Your task to perform on an android device: Go to location settings Image 0: 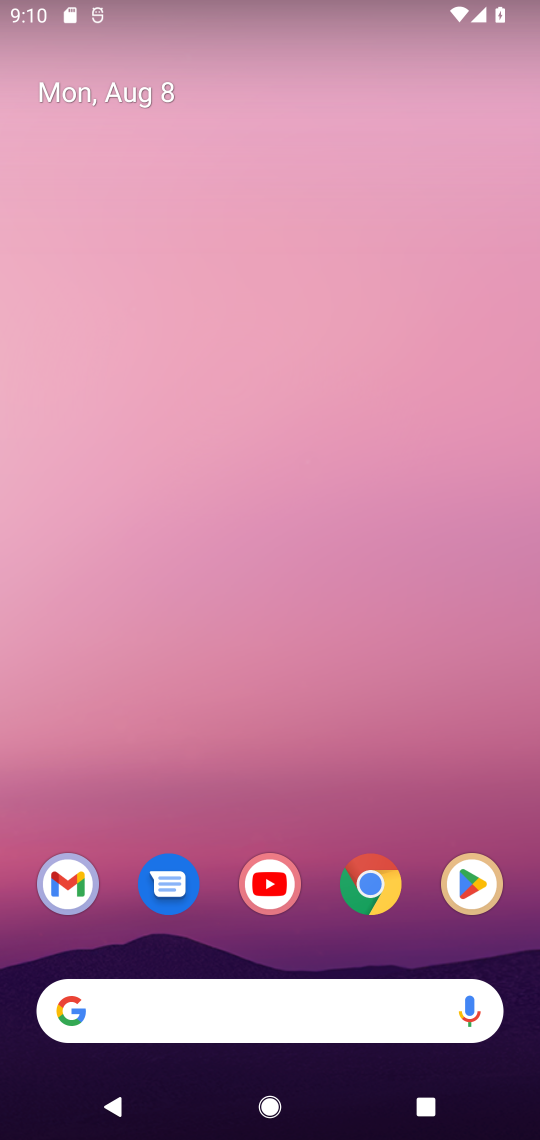
Step 0: drag from (236, 776) to (227, 20)
Your task to perform on an android device: Go to location settings Image 1: 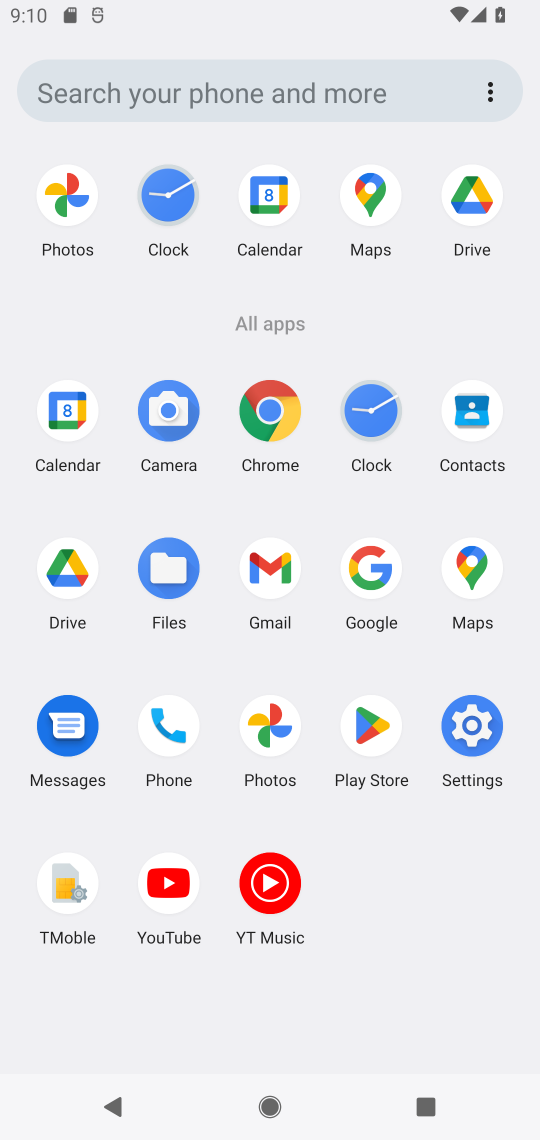
Step 1: click (474, 722)
Your task to perform on an android device: Go to location settings Image 2: 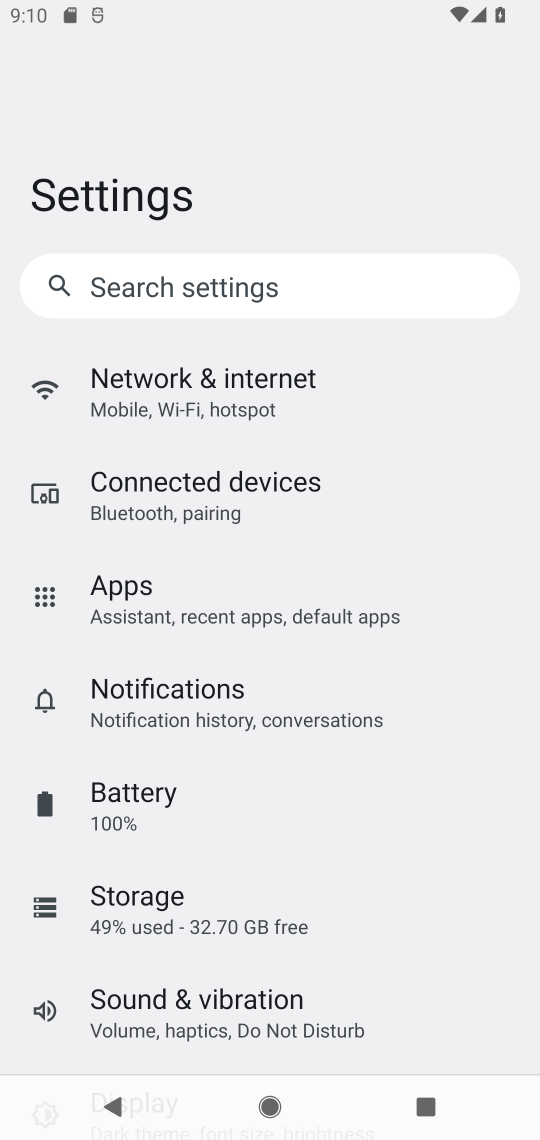
Step 2: drag from (292, 877) to (265, 242)
Your task to perform on an android device: Go to location settings Image 3: 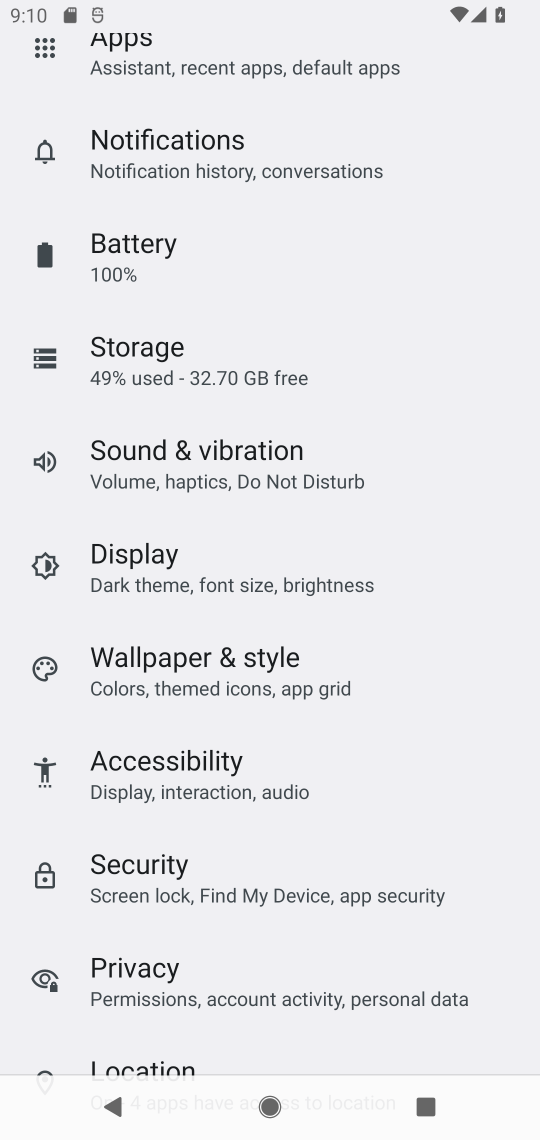
Step 3: drag from (378, 792) to (370, 335)
Your task to perform on an android device: Go to location settings Image 4: 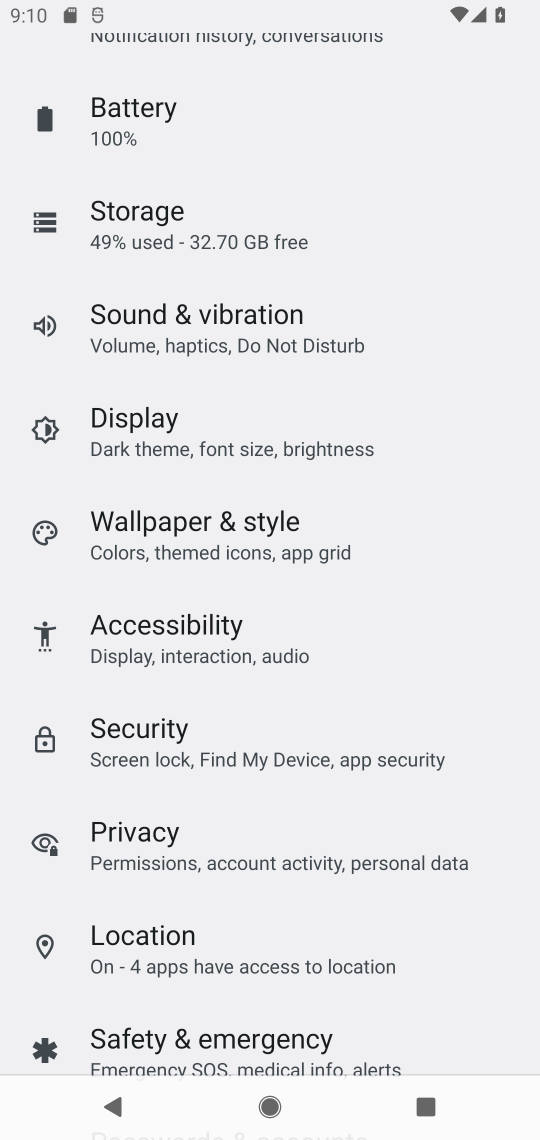
Step 4: click (152, 929)
Your task to perform on an android device: Go to location settings Image 5: 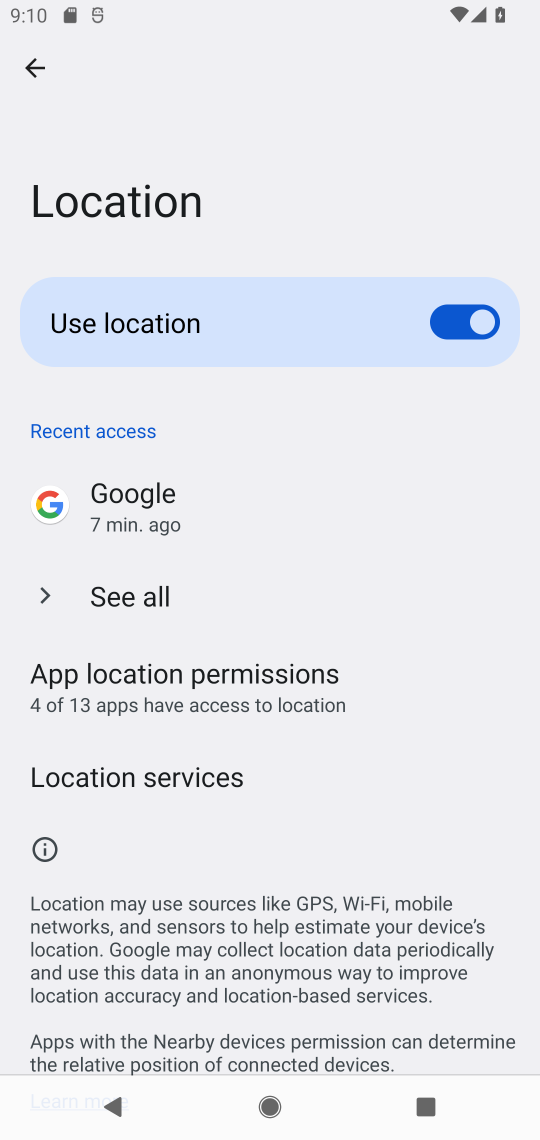
Step 5: task complete